Your task to perform on an android device: Show me the alarms in the clock app Image 0: 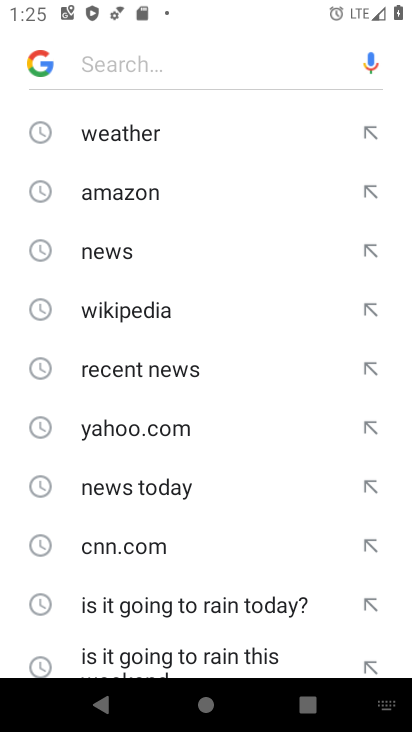
Step 0: press home button
Your task to perform on an android device: Show me the alarms in the clock app Image 1: 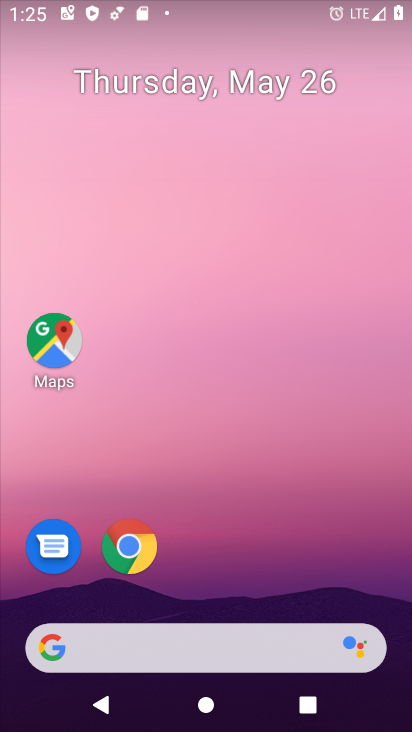
Step 1: drag from (395, 625) to (334, 43)
Your task to perform on an android device: Show me the alarms in the clock app Image 2: 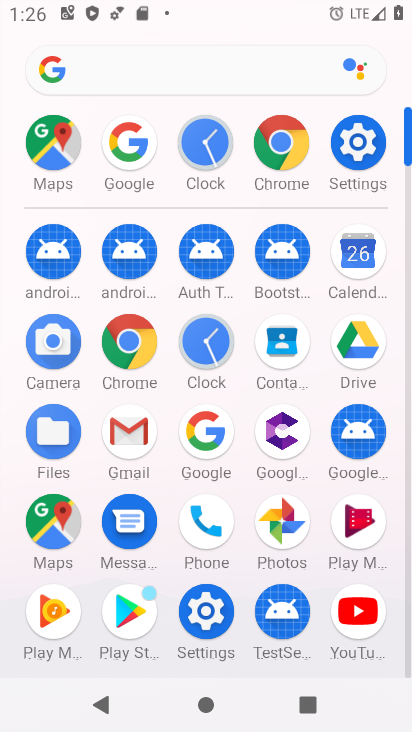
Step 2: click (210, 342)
Your task to perform on an android device: Show me the alarms in the clock app Image 3: 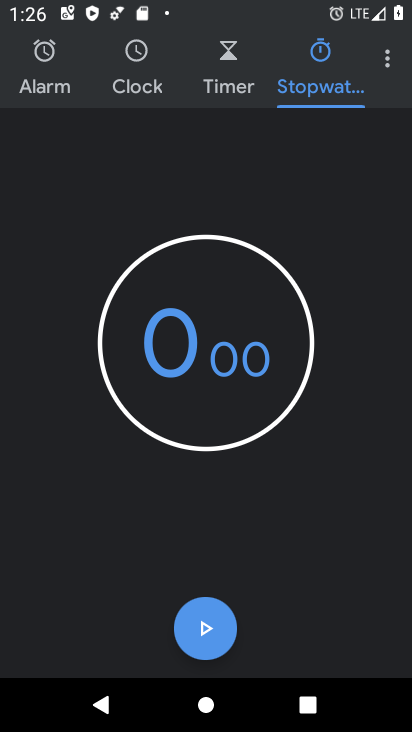
Step 3: click (39, 70)
Your task to perform on an android device: Show me the alarms in the clock app Image 4: 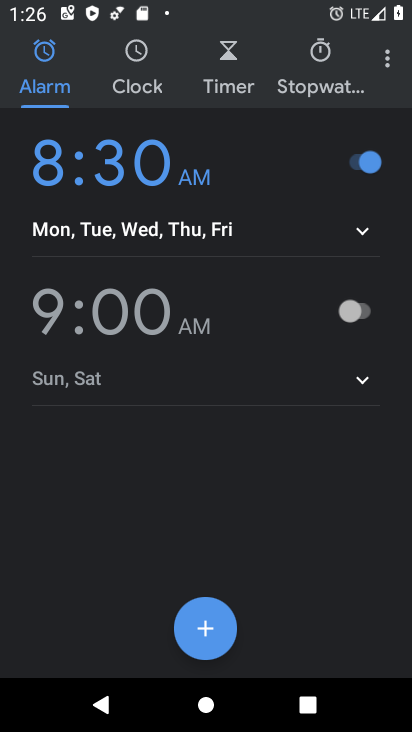
Step 4: task complete